Your task to perform on an android device: make emails show in primary in the gmail app Image 0: 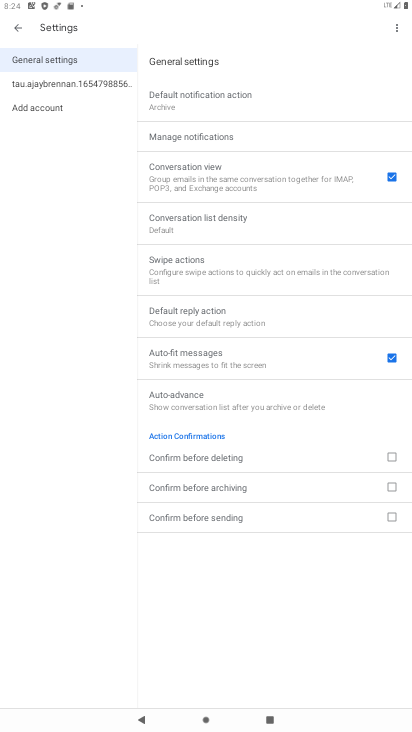
Step 0: click (65, 96)
Your task to perform on an android device: make emails show in primary in the gmail app Image 1: 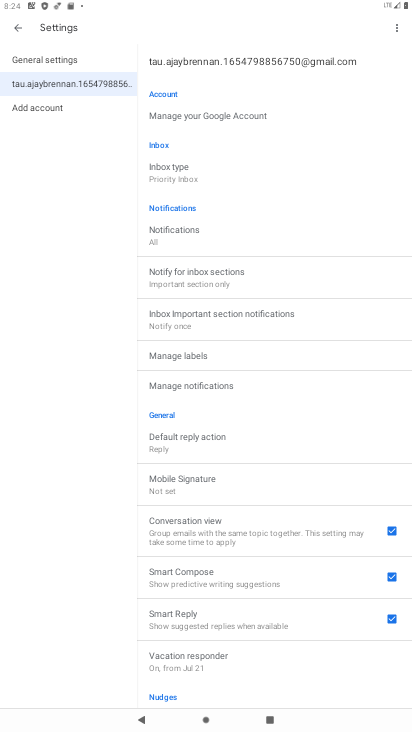
Step 1: click (174, 184)
Your task to perform on an android device: make emails show in primary in the gmail app Image 2: 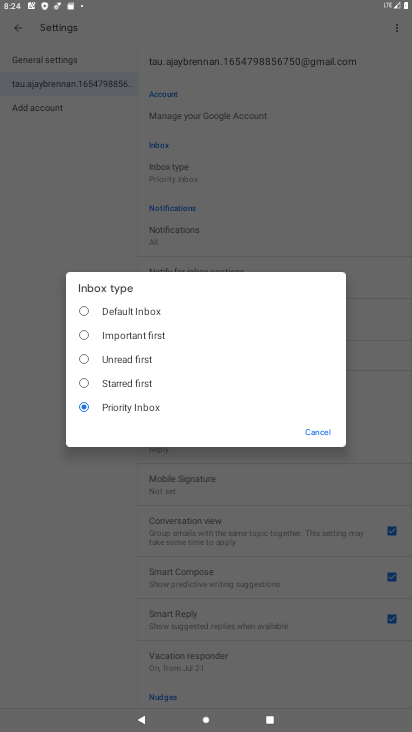
Step 2: click (139, 307)
Your task to perform on an android device: make emails show in primary in the gmail app Image 3: 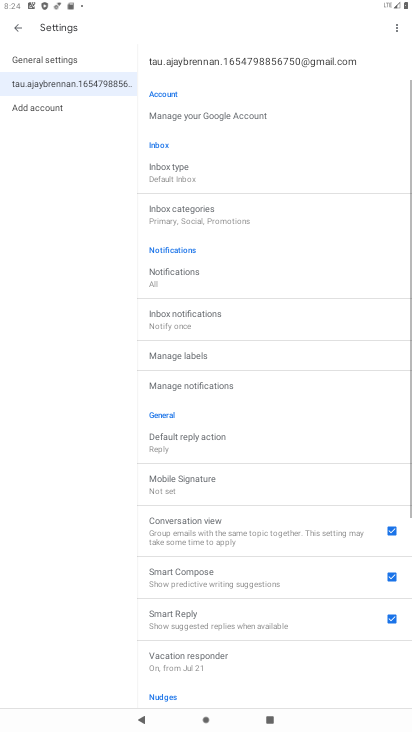
Step 3: click (212, 216)
Your task to perform on an android device: make emails show in primary in the gmail app Image 4: 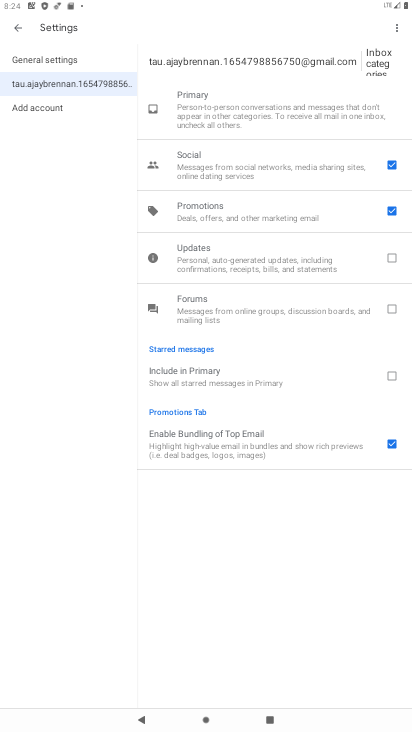
Step 4: click (379, 442)
Your task to perform on an android device: make emails show in primary in the gmail app Image 5: 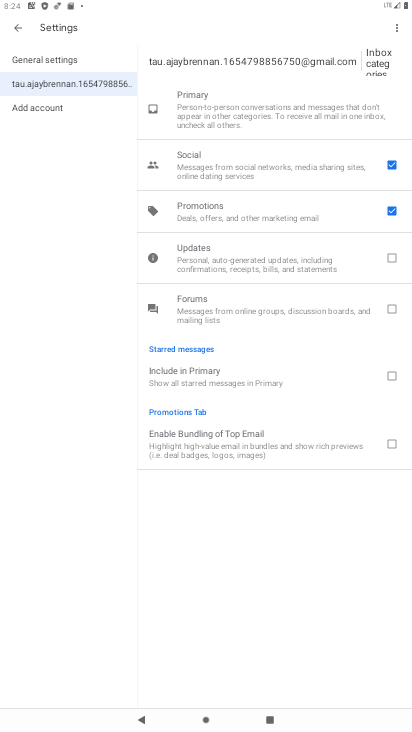
Step 5: click (381, 207)
Your task to perform on an android device: make emails show in primary in the gmail app Image 6: 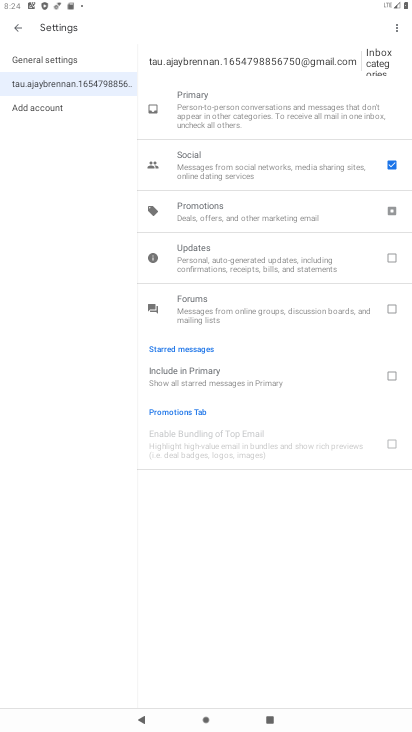
Step 6: click (388, 165)
Your task to perform on an android device: make emails show in primary in the gmail app Image 7: 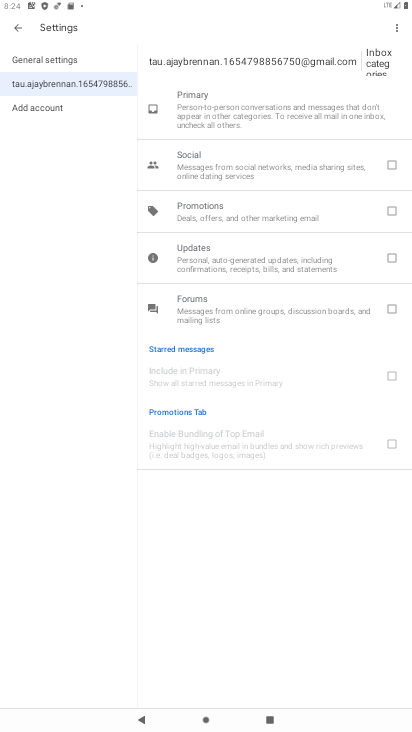
Step 7: task complete